Your task to perform on an android device: Open the stopwatch Image 0: 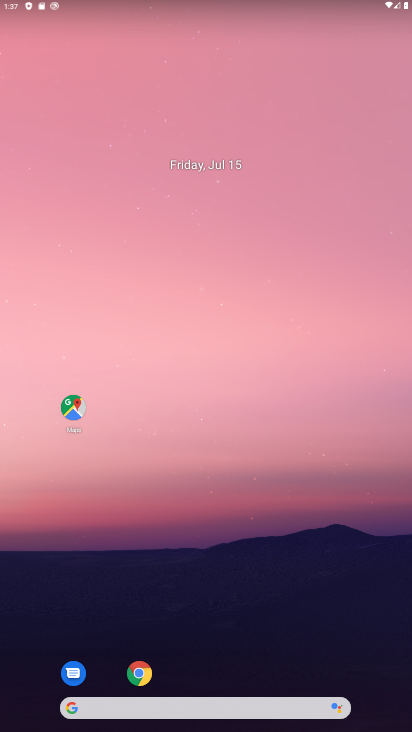
Step 0: drag from (275, 502) to (203, 11)
Your task to perform on an android device: Open the stopwatch Image 1: 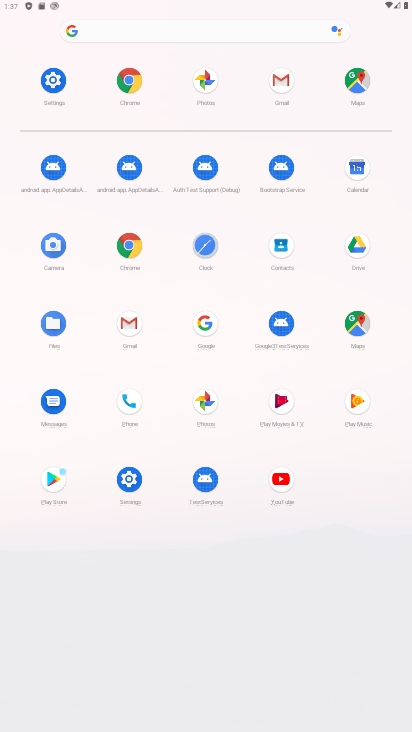
Step 1: click (194, 248)
Your task to perform on an android device: Open the stopwatch Image 2: 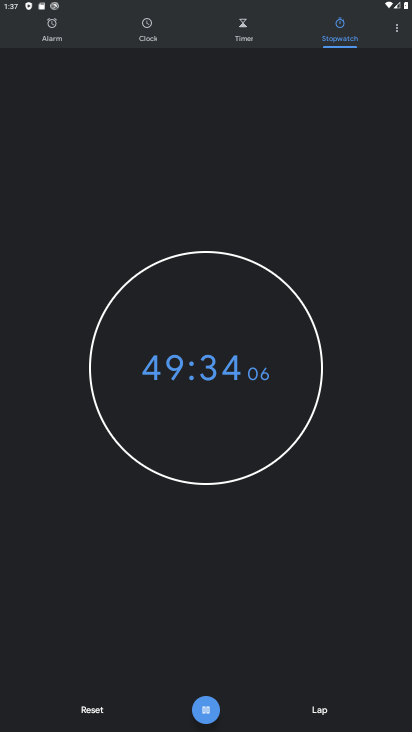
Step 2: task complete